Your task to perform on an android device: set an alarm Image 0: 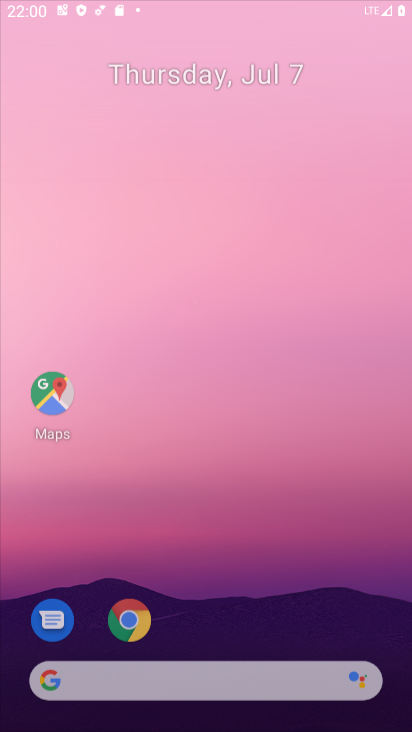
Step 0: click (280, 78)
Your task to perform on an android device: set an alarm Image 1: 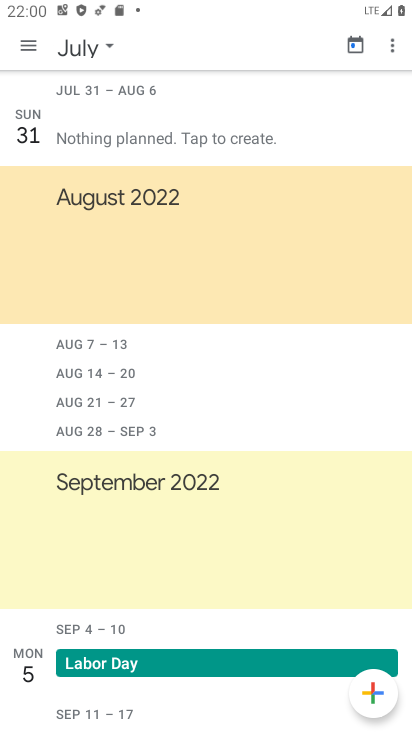
Step 1: press home button
Your task to perform on an android device: set an alarm Image 2: 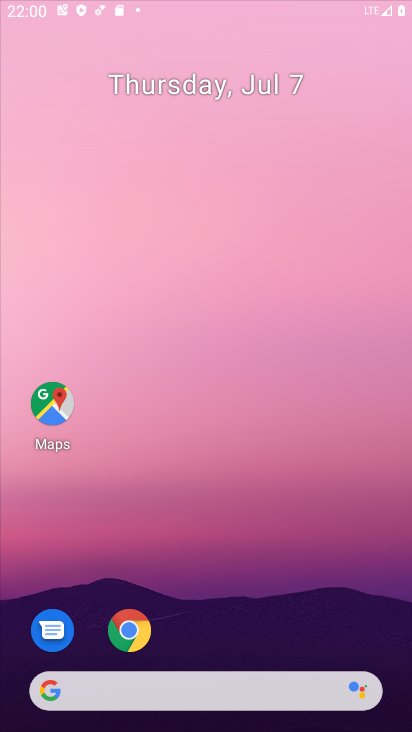
Step 2: drag from (194, 616) to (250, 31)
Your task to perform on an android device: set an alarm Image 3: 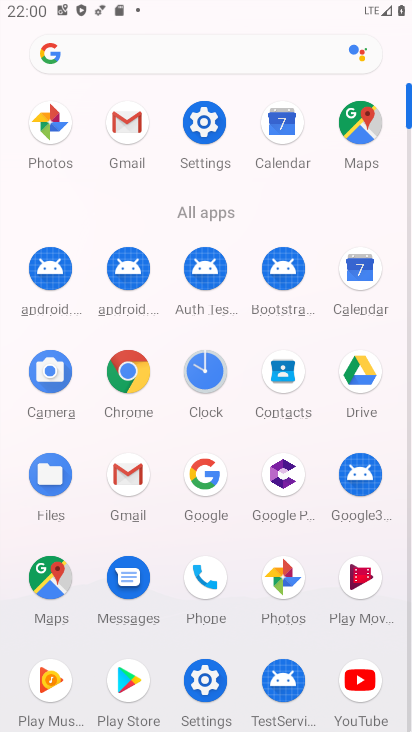
Step 3: click (211, 371)
Your task to perform on an android device: set an alarm Image 4: 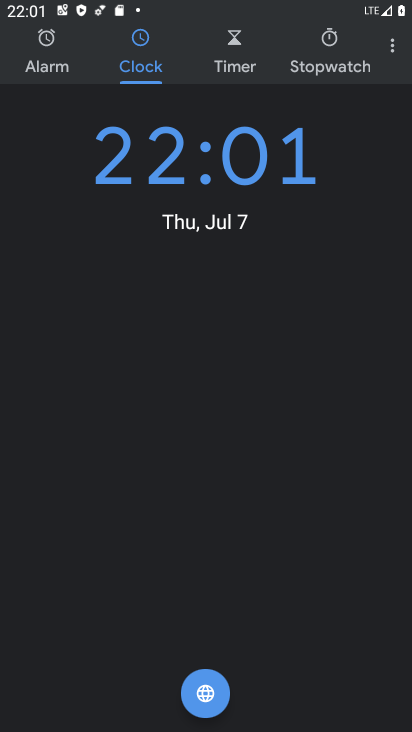
Step 4: click (46, 68)
Your task to perform on an android device: set an alarm Image 5: 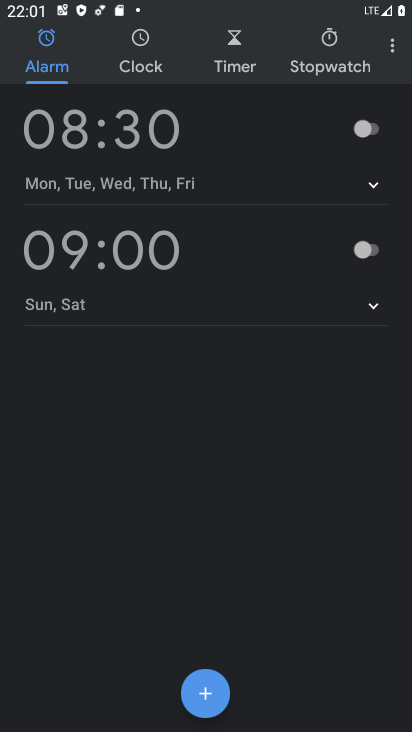
Step 5: click (360, 256)
Your task to perform on an android device: set an alarm Image 6: 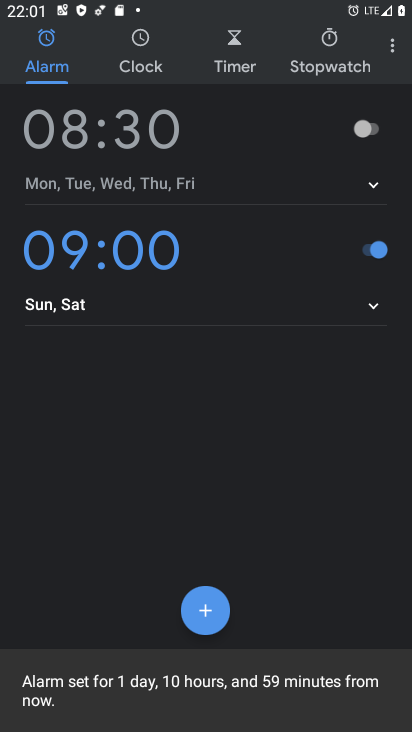
Step 6: task complete